Your task to perform on an android device: turn off translation in the chrome app Image 0: 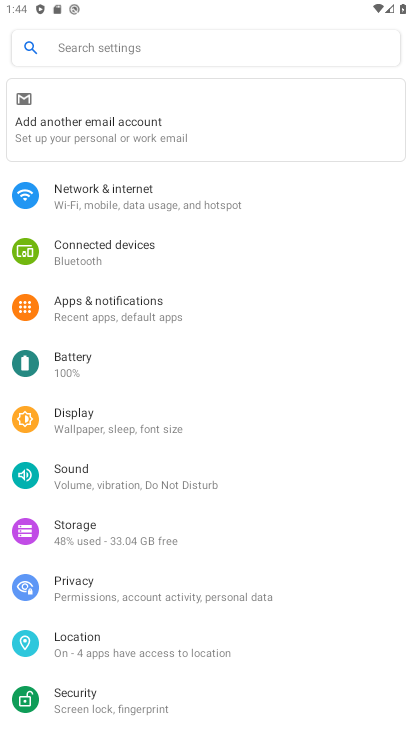
Step 0: press home button
Your task to perform on an android device: turn off translation in the chrome app Image 1: 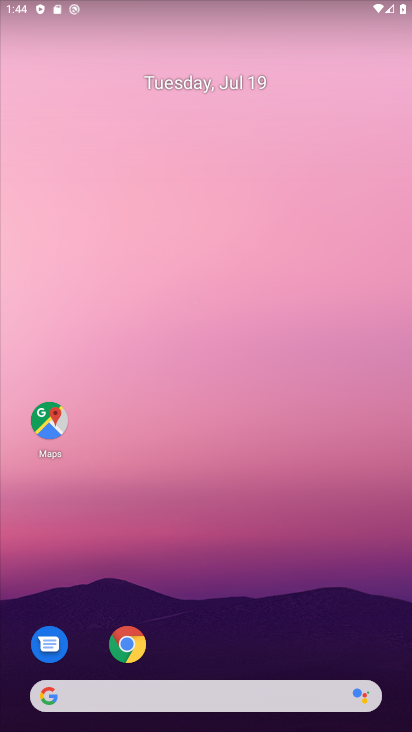
Step 1: click (129, 643)
Your task to perform on an android device: turn off translation in the chrome app Image 2: 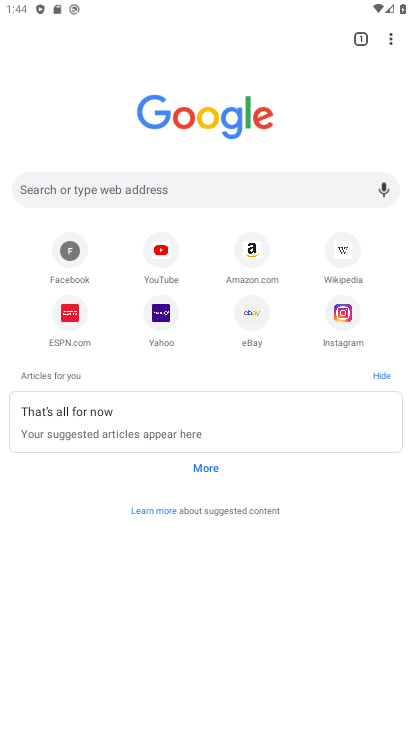
Step 2: click (392, 44)
Your task to perform on an android device: turn off translation in the chrome app Image 3: 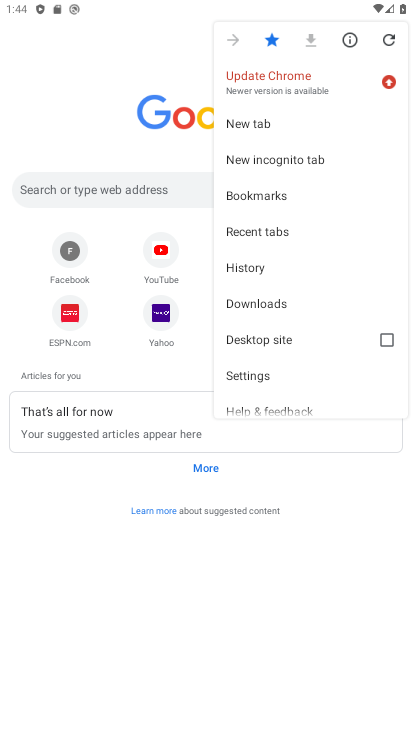
Step 3: click (243, 381)
Your task to perform on an android device: turn off translation in the chrome app Image 4: 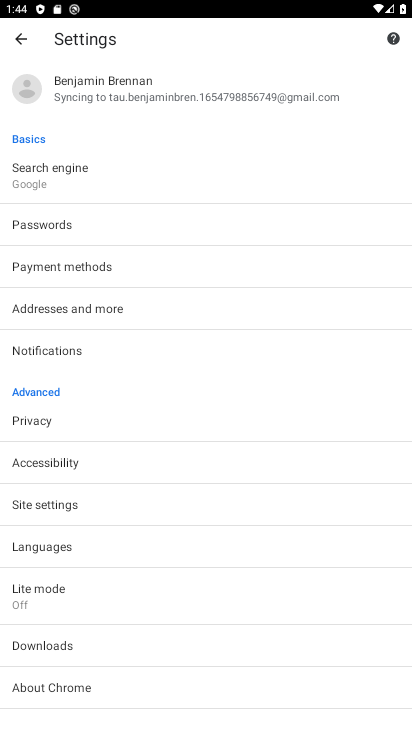
Step 4: click (59, 548)
Your task to perform on an android device: turn off translation in the chrome app Image 5: 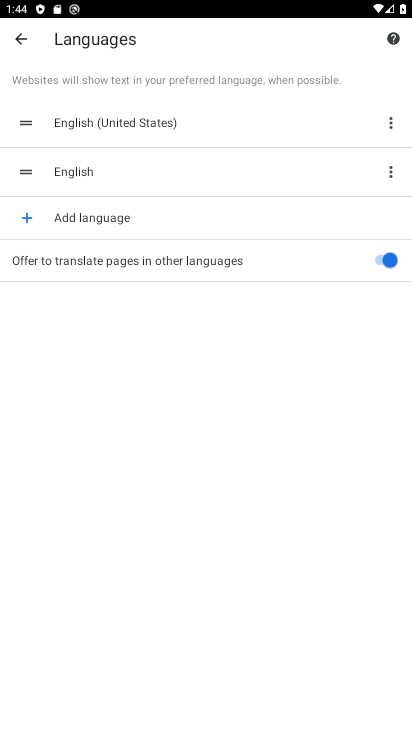
Step 5: click (380, 261)
Your task to perform on an android device: turn off translation in the chrome app Image 6: 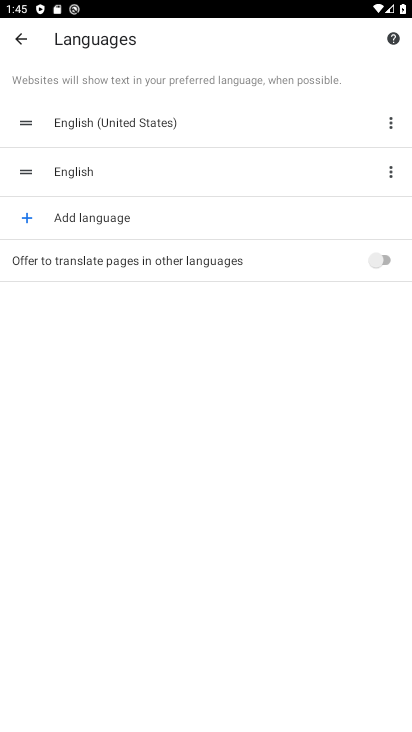
Step 6: task complete